Your task to perform on an android device: add a contact Image 0: 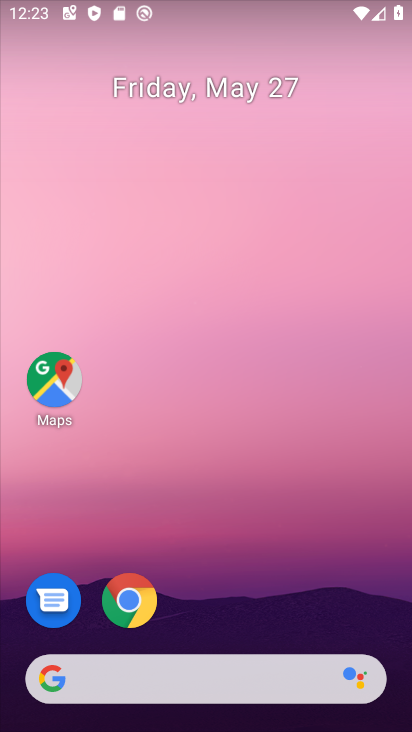
Step 0: drag from (293, 623) to (206, 25)
Your task to perform on an android device: add a contact Image 1: 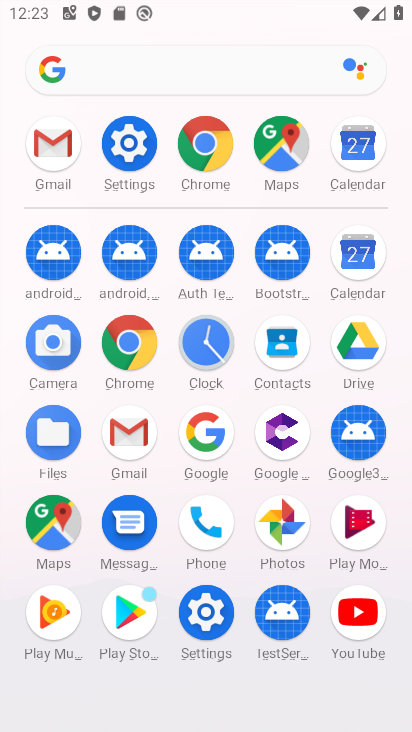
Step 1: drag from (8, 578) to (7, 210)
Your task to perform on an android device: add a contact Image 2: 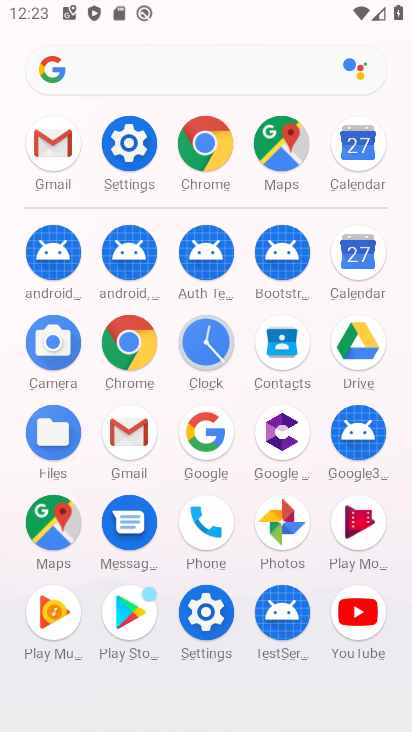
Step 2: click (207, 522)
Your task to perform on an android device: add a contact Image 3: 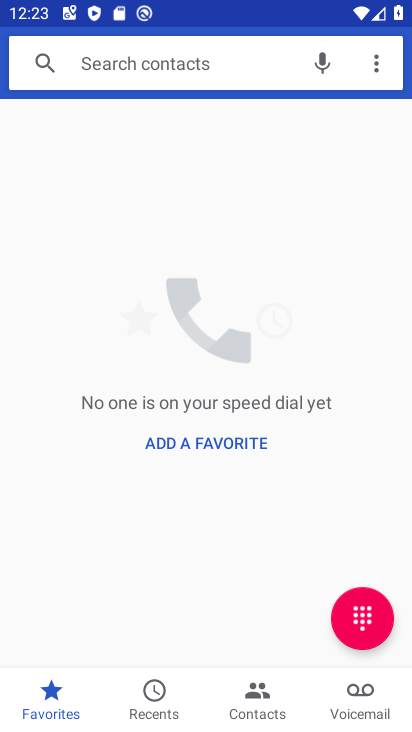
Step 3: click (266, 676)
Your task to perform on an android device: add a contact Image 4: 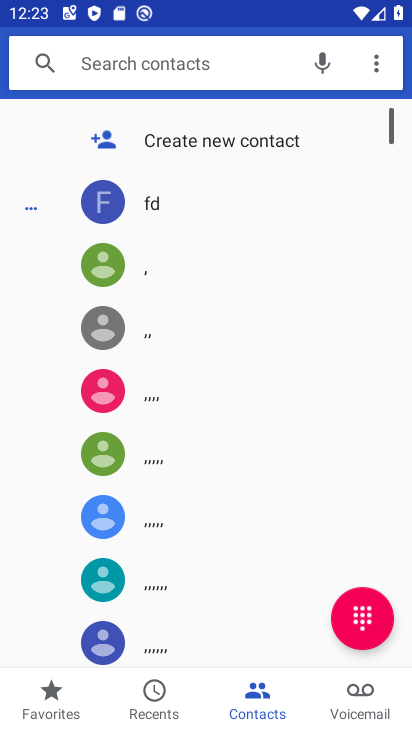
Step 4: click (223, 122)
Your task to perform on an android device: add a contact Image 5: 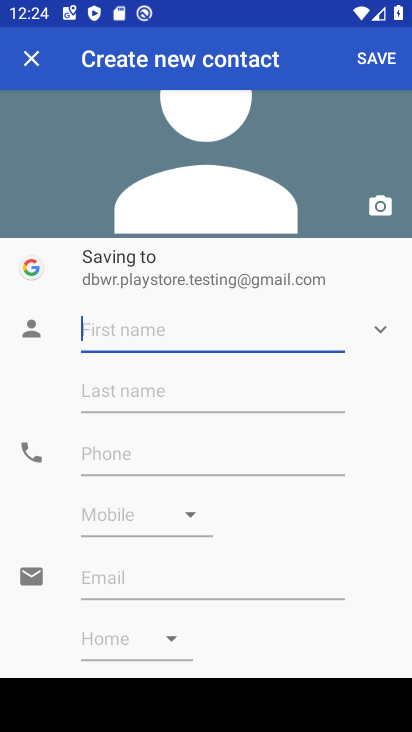
Step 5: type "DFGH"
Your task to perform on an android device: add a contact Image 6: 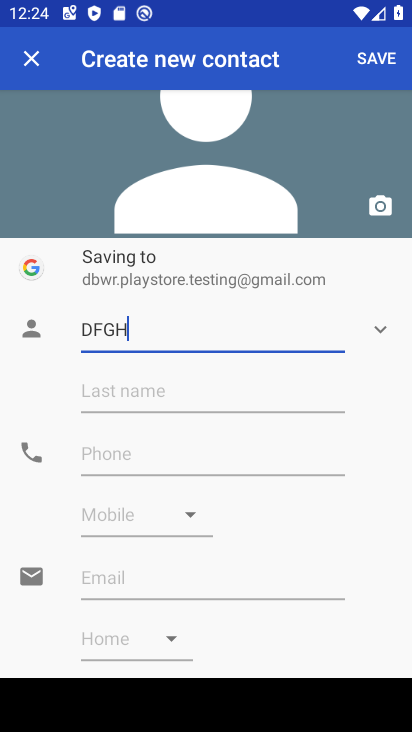
Step 6: type ""
Your task to perform on an android device: add a contact Image 7: 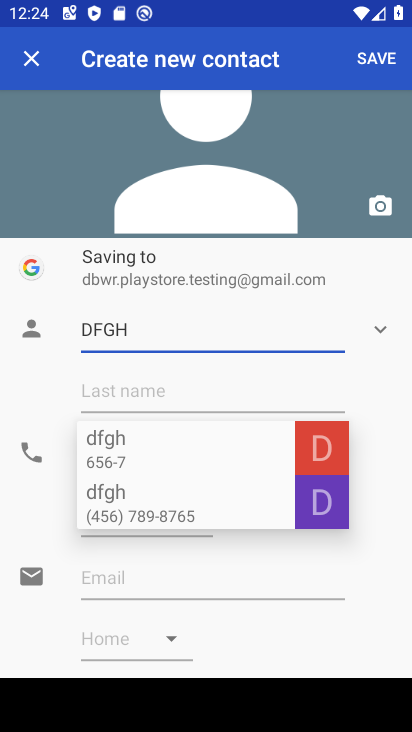
Step 7: click (131, 460)
Your task to perform on an android device: add a contact Image 8: 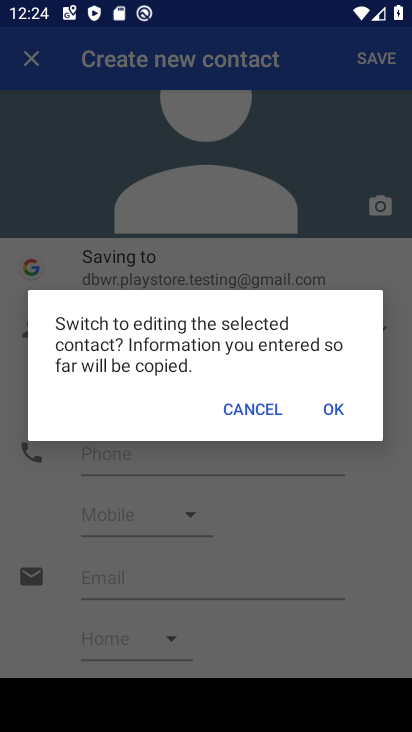
Step 8: click (333, 402)
Your task to perform on an android device: add a contact Image 9: 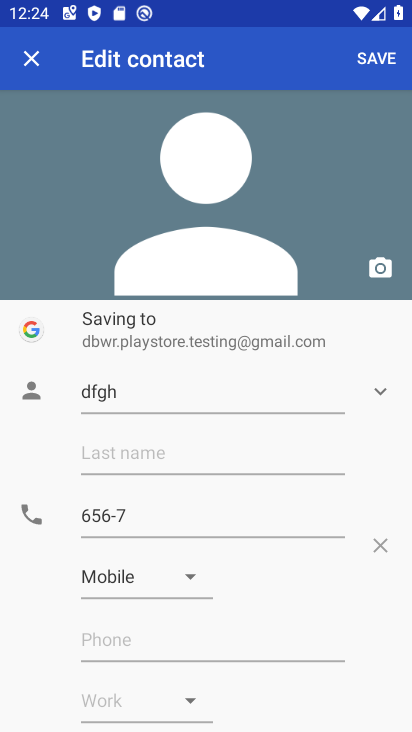
Step 9: click (374, 66)
Your task to perform on an android device: add a contact Image 10: 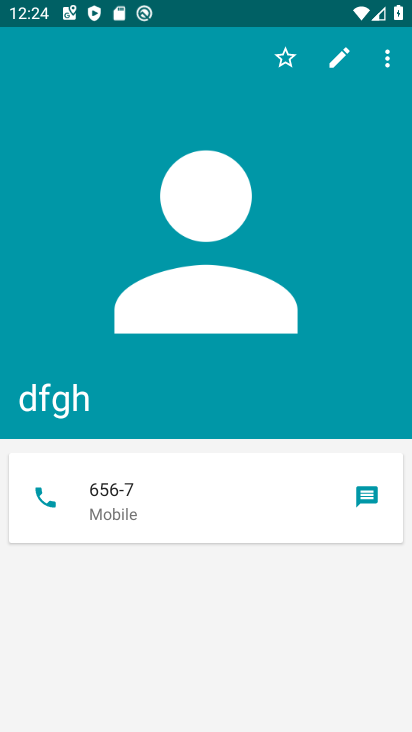
Step 10: task complete